Your task to perform on an android device: turn off notifications settings in the gmail app Image 0: 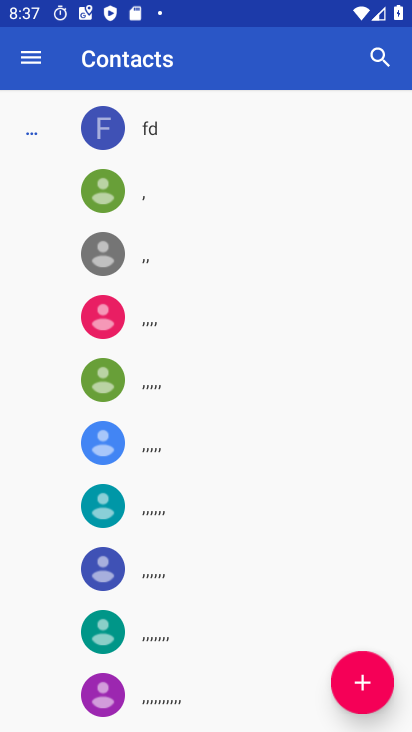
Step 0: press back button
Your task to perform on an android device: turn off notifications settings in the gmail app Image 1: 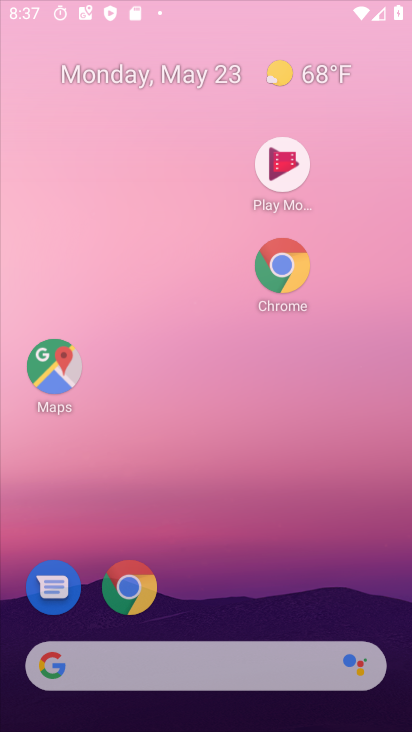
Step 1: press back button
Your task to perform on an android device: turn off notifications settings in the gmail app Image 2: 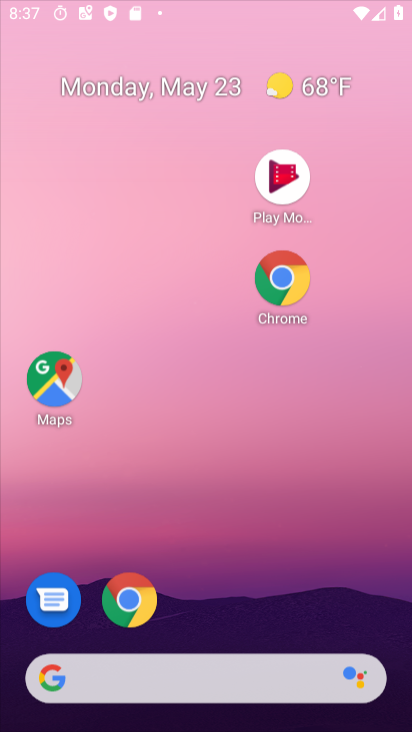
Step 2: press home button
Your task to perform on an android device: turn off notifications settings in the gmail app Image 3: 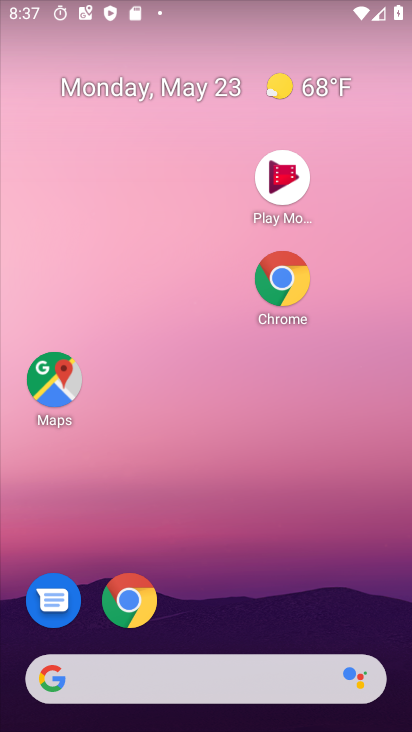
Step 3: press back button
Your task to perform on an android device: turn off notifications settings in the gmail app Image 4: 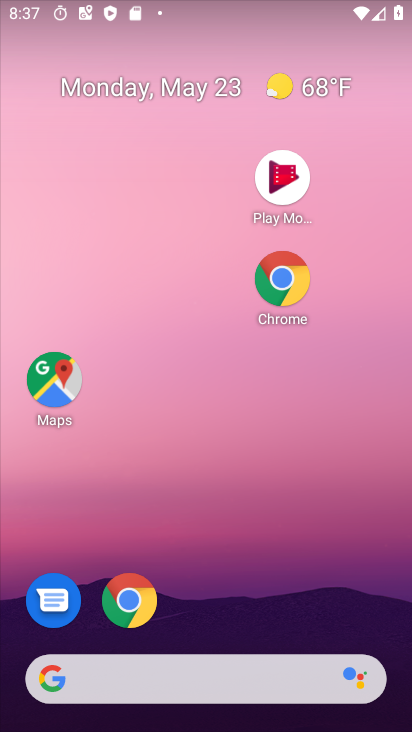
Step 4: press home button
Your task to perform on an android device: turn off notifications settings in the gmail app Image 5: 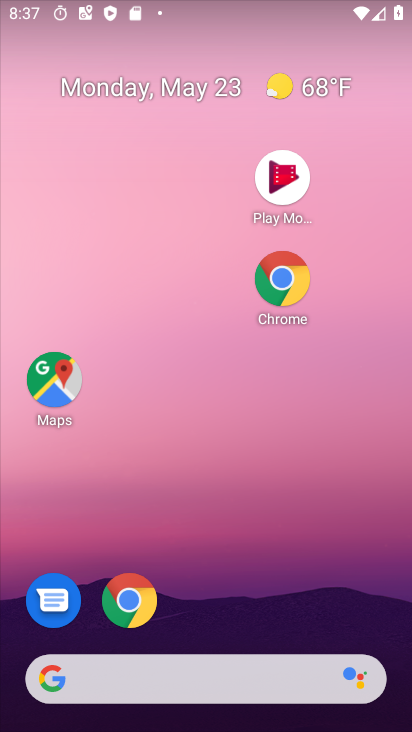
Step 5: click (242, 112)
Your task to perform on an android device: turn off notifications settings in the gmail app Image 6: 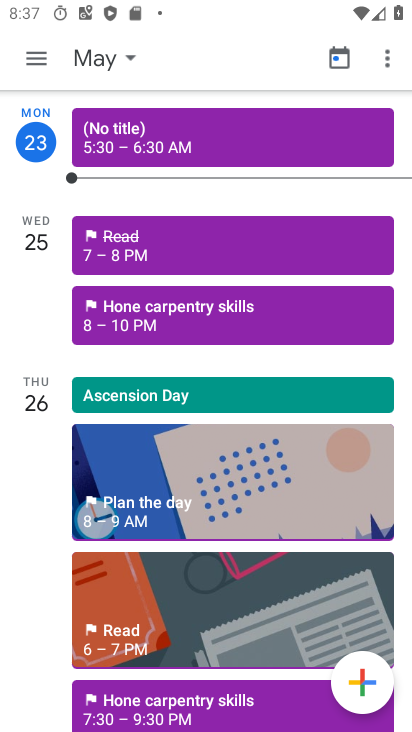
Step 6: drag from (188, 138) to (253, 174)
Your task to perform on an android device: turn off notifications settings in the gmail app Image 7: 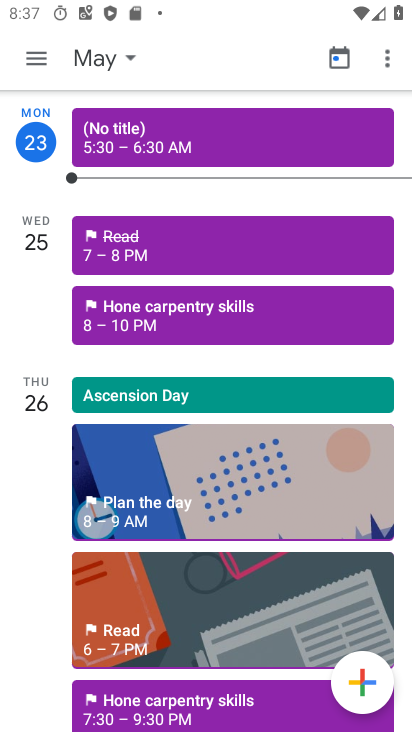
Step 7: press back button
Your task to perform on an android device: turn off notifications settings in the gmail app Image 8: 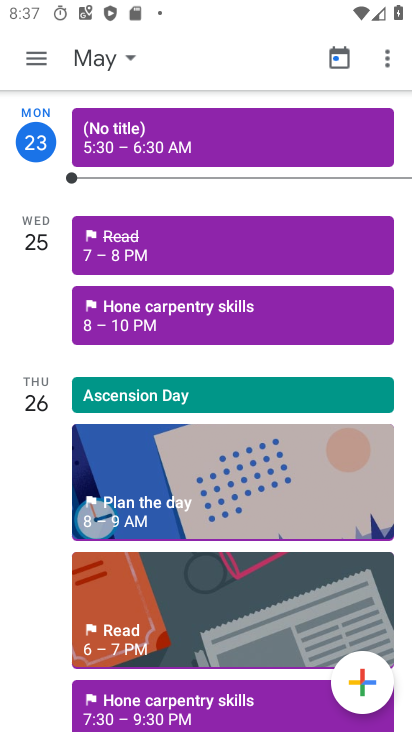
Step 8: press back button
Your task to perform on an android device: turn off notifications settings in the gmail app Image 9: 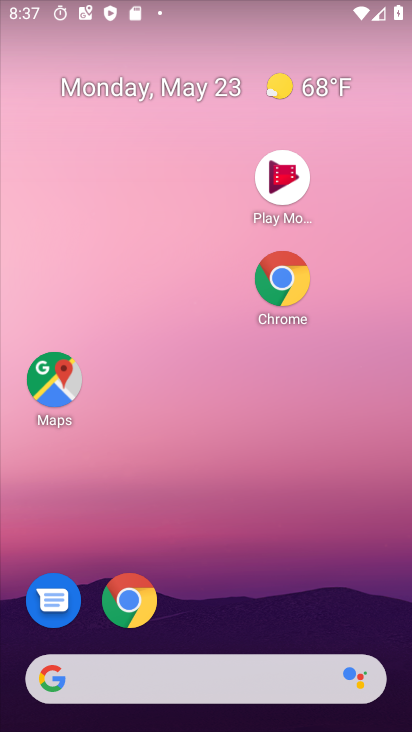
Step 9: drag from (235, 706) to (199, 159)
Your task to perform on an android device: turn off notifications settings in the gmail app Image 10: 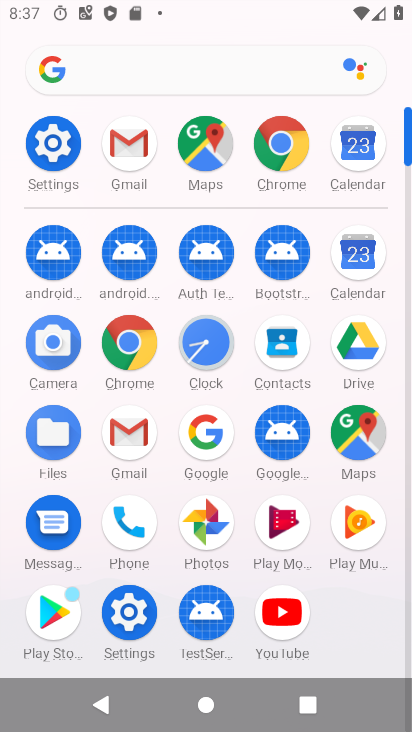
Step 10: drag from (247, 731) to (224, 219)
Your task to perform on an android device: turn off notifications settings in the gmail app Image 11: 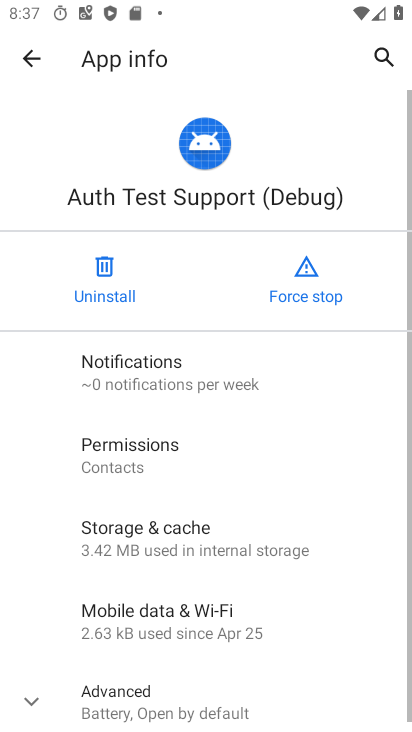
Step 11: click (64, 142)
Your task to perform on an android device: turn off notifications settings in the gmail app Image 12: 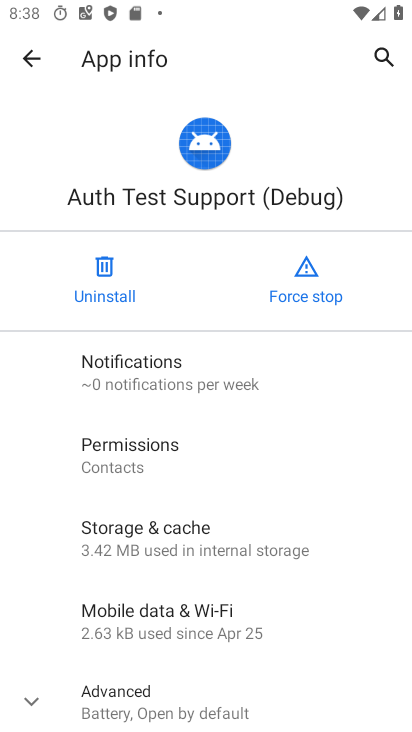
Step 12: click (16, 61)
Your task to perform on an android device: turn off notifications settings in the gmail app Image 13: 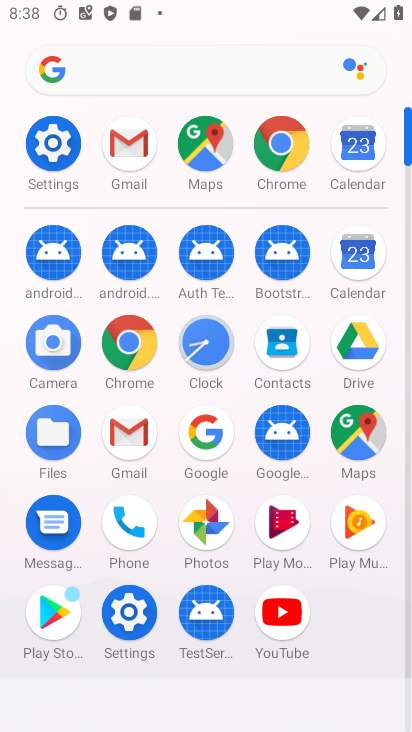
Step 13: click (45, 160)
Your task to perform on an android device: turn off notifications settings in the gmail app Image 14: 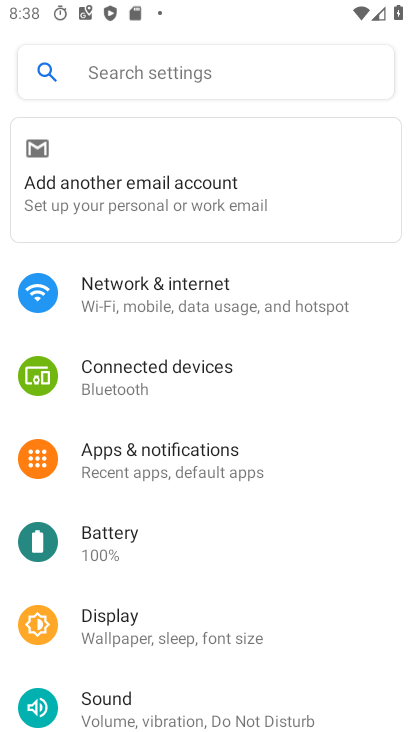
Step 14: click (151, 456)
Your task to perform on an android device: turn off notifications settings in the gmail app Image 15: 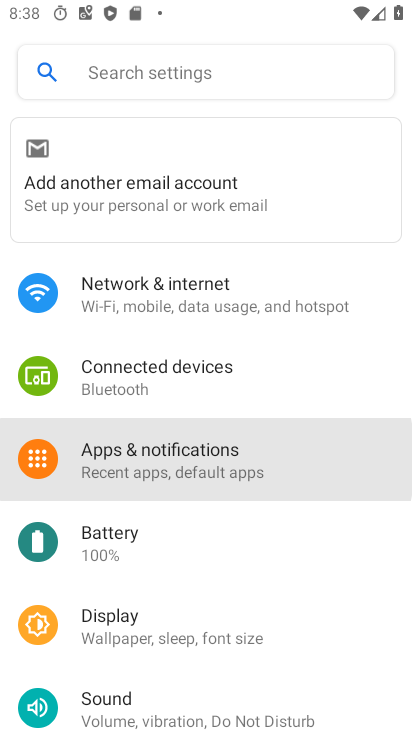
Step 15: click (152, 454)
Your task to perform on an android device: turn off notifications settings in the gmail app Image 16: 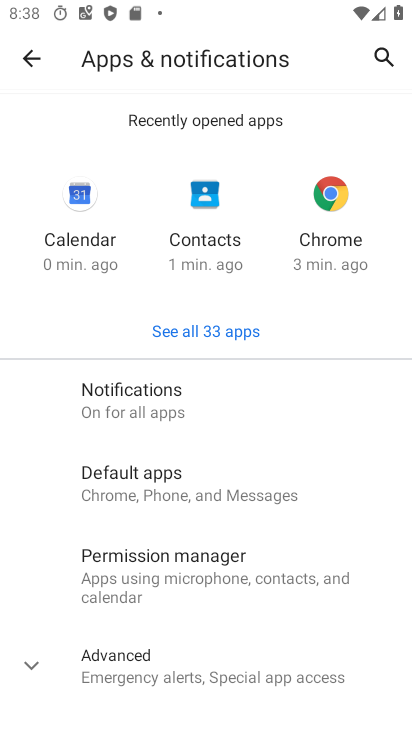
Step 16: click (36, 66)
Your task to perform on an android device: turn off notifications settings in the gmail app Image 17: 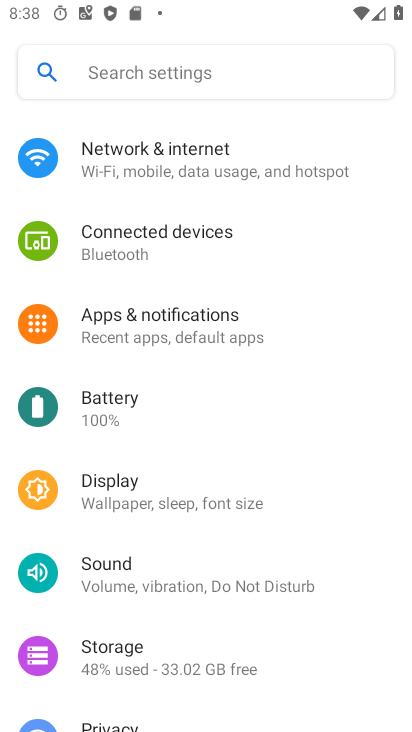
Step 17: press home button
Your task to perform on an android device: turn off notifications settings in the gmail app Image 18: 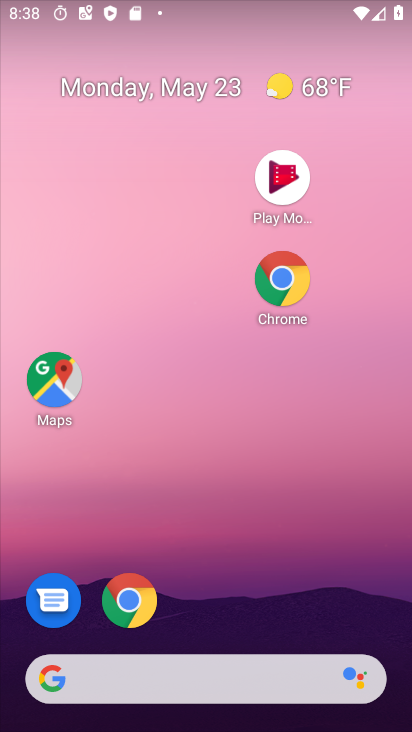
Step 18: drag from (333, 705) to (226, 102)
Your task to perform on an android device: turn off notifications settings in the gmail app Image 19: 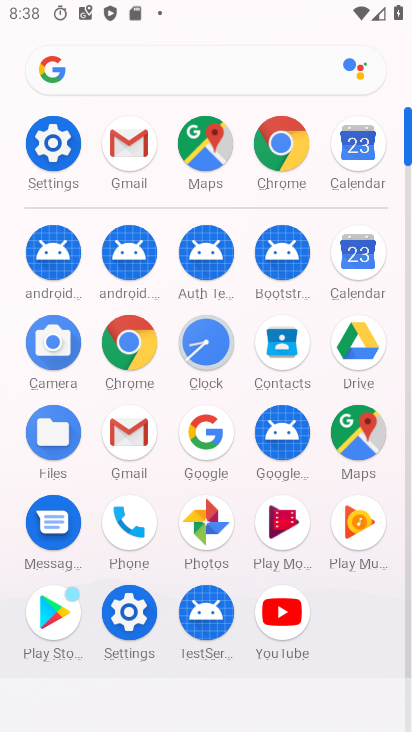
Step 19: click (131, 438)
Your task to perform on an android device: turn off notifications settings in the gmail app Image 20: 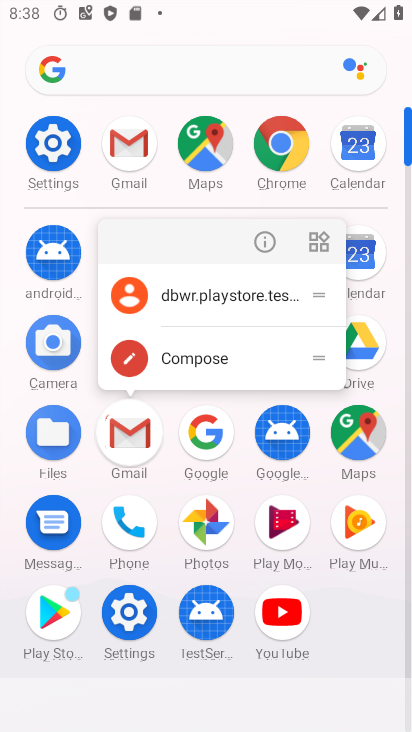
Step 20: click (138, 425)
Your task to perform on an android device: turn off notifications settings in the gmail app Image 21: 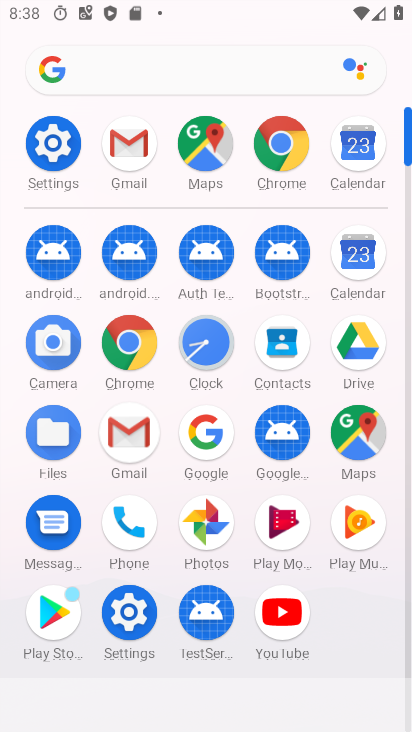
Step 21: click (140, 422)
Your task to perform on an android device: turn off notifications settings in the gmail app Image 22: 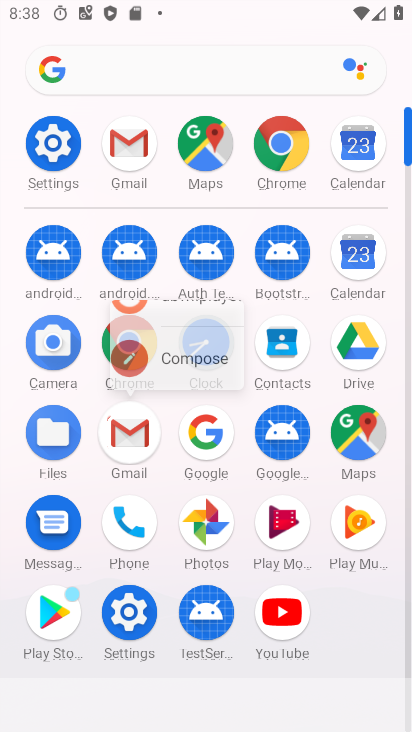
Step 22: click (152, 427)
Your task to perform on an android device: turn off notifications settings in the gmail app Image 23: 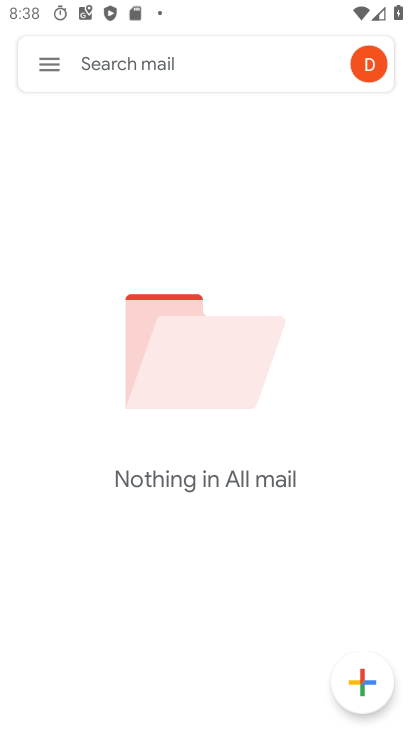
Step 23: click (64, 61)
Your task to perform on an android device: turn off notifications settings in the gmail app Image 24: 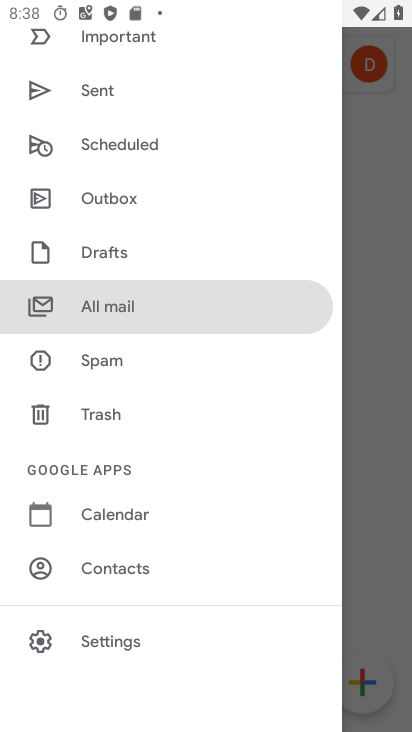
Step 24: click (99, 636)
Your task to perform on an android device: turn off notifications settings in the gmail app Image 25: 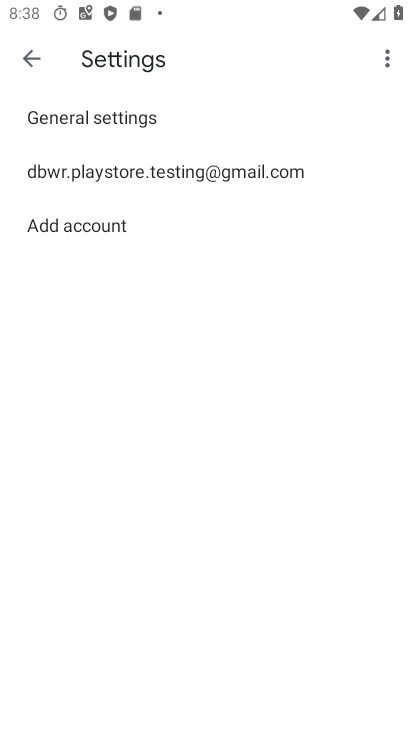
Step 25: click (113, 154)
Your task to perform on an android device: turn off notifications settings in the gmail app Image 26: 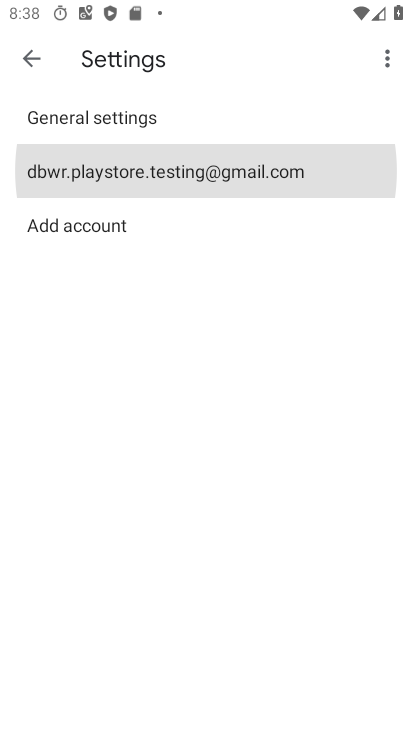
Step 26: click (124, 176)
Your task to perform on an android device: turn off notifications settings in the gmail app Image 27: 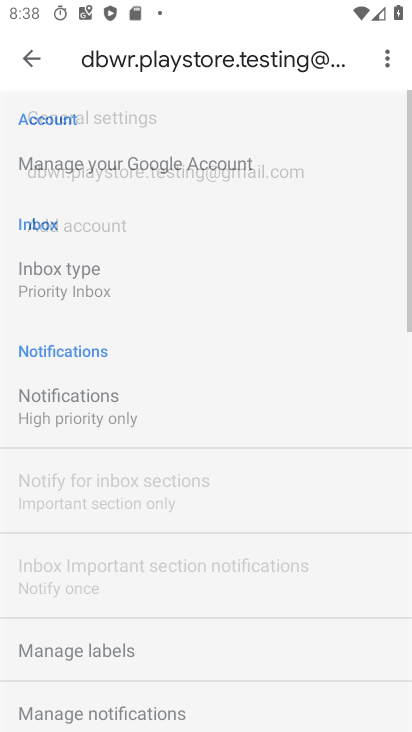
Step 27: click (124, 176)
Your task to perform on an android device: turn off notifications settings in the gmail app Image 28: 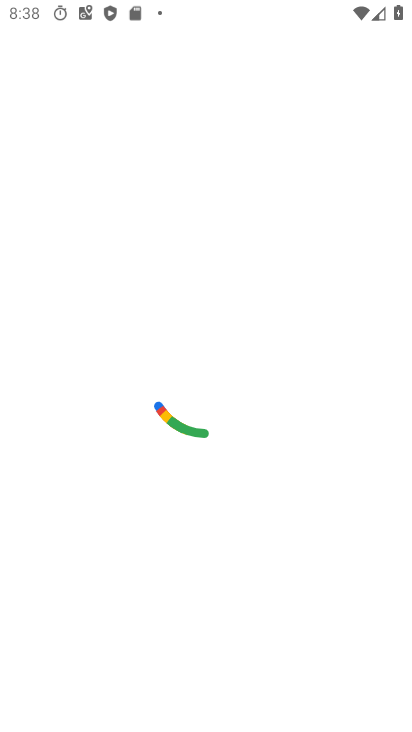
Step 28: press back button
Your task to perform on an android device: turn off notifications settings in the gmail app Image 29: 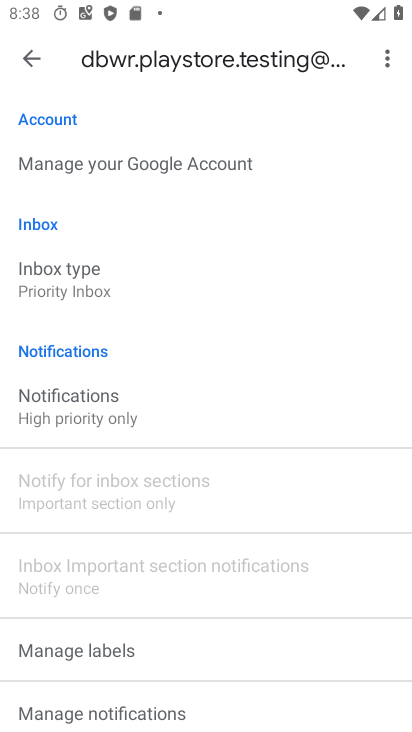
Step 29: click (76, 412)
Your task to perform on an android device: turn off notifications settings in the gmail app Image 30: 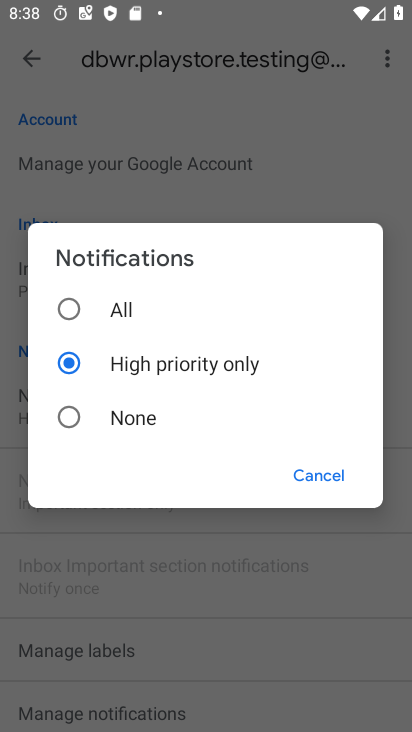
Step 30: click (65, 420)
Your task to perform on an android device: turn off notifications settings in the gmail app Image 31: 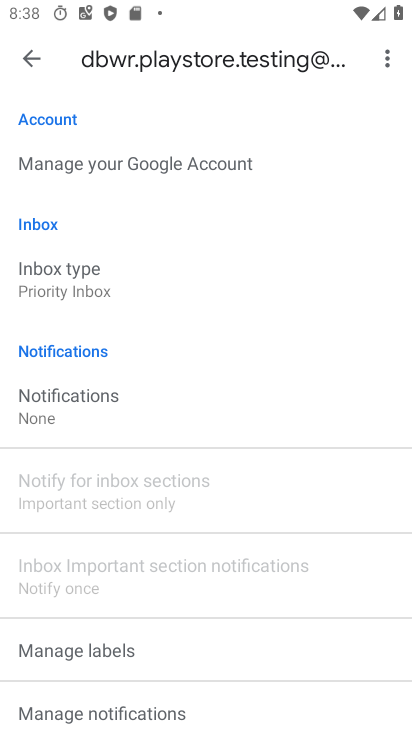
Step 31: task complete